Your task to perform on an android device: set default search engine in the chrome app Image 0: 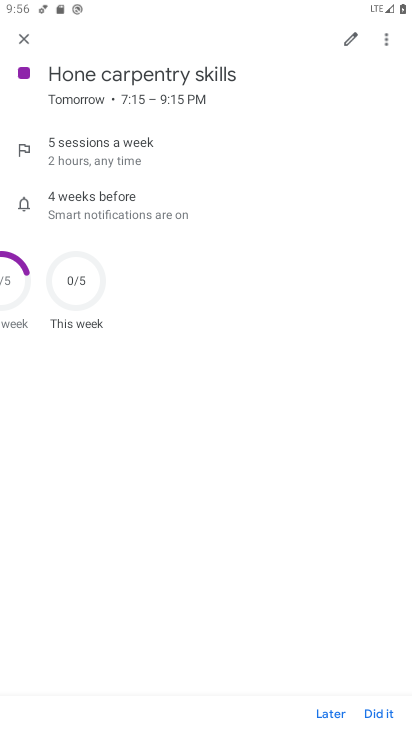
Step 0: press home button
Your task to perform on an android device: set default search engine in the chrome app Image 1: 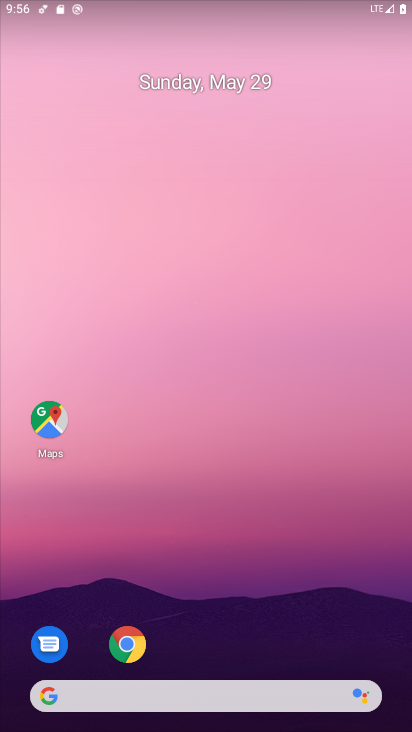
Step 1: click (135, 652)
Your task to perform on an android device: set default search engine in the chrome app Image 2: 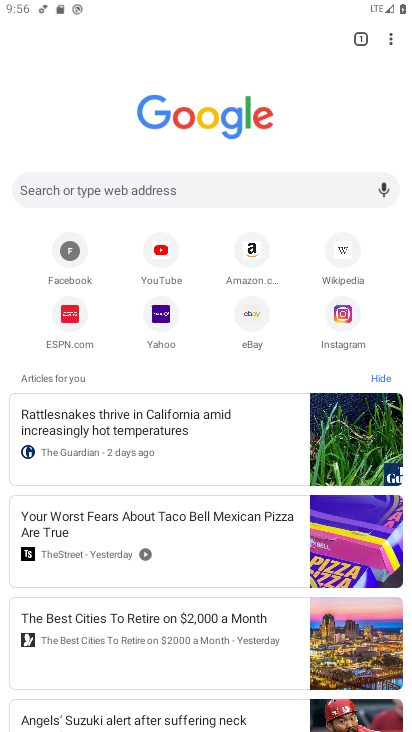
Step 2: click (393, 39)
Your task to perform on an android device: set default search engine in the chrome app Image 3: 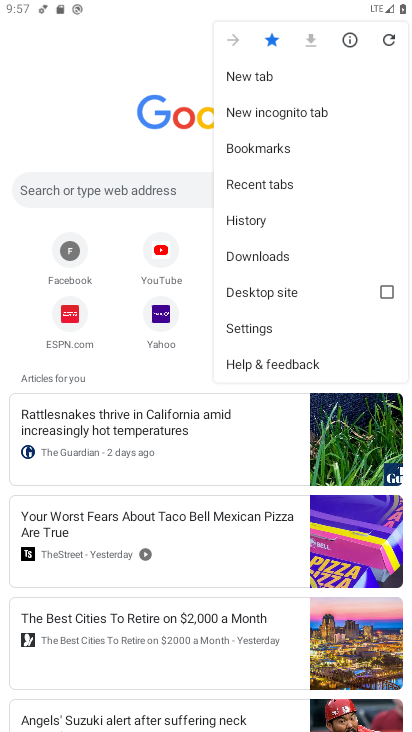
Step 3: click (269, 332)
Your task to perform on an android device: set default search engine in the chrome app Image 4: 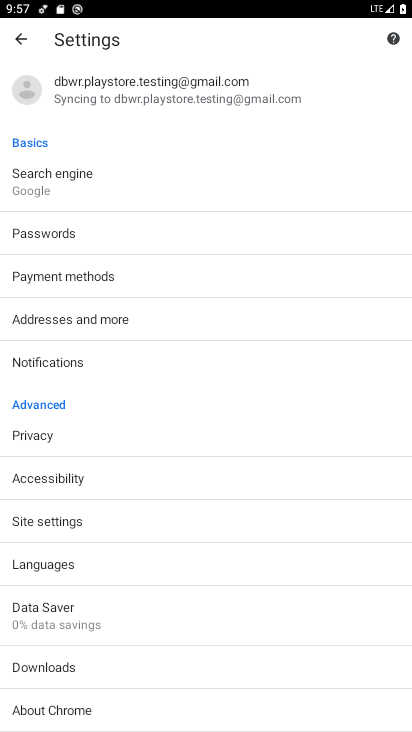
Step 4: click (142, 186)
Your task to perform on an android device: set default search engine in the chrome app Image 5: 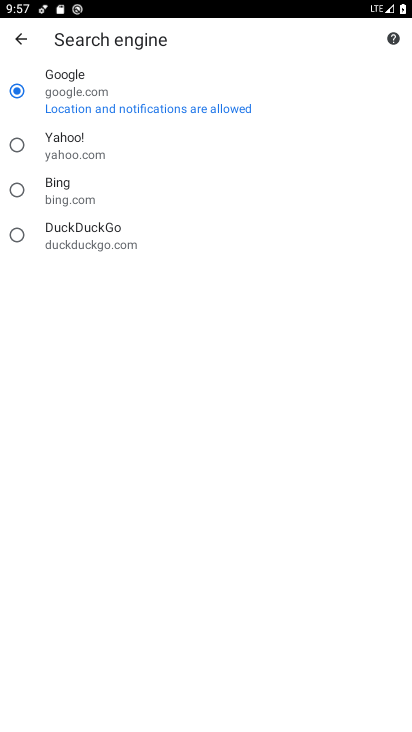
Step 5: click (142, 148)
Your task to perform on an android device: set default search engine in the chrome app Image 6: 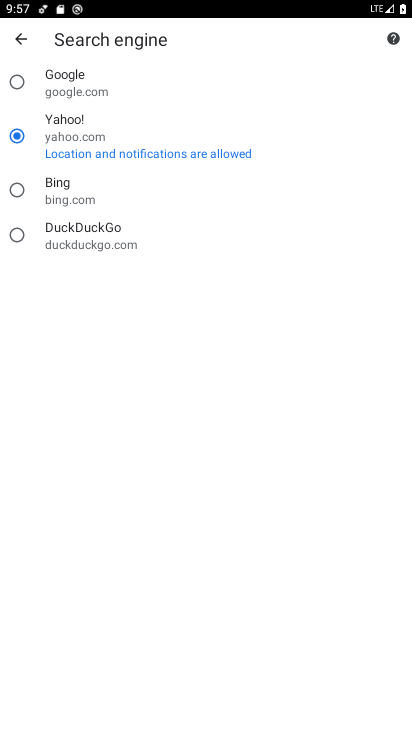
Step 6: task complete